Your task to perform on an android device: turn off airplane mode Image 0: 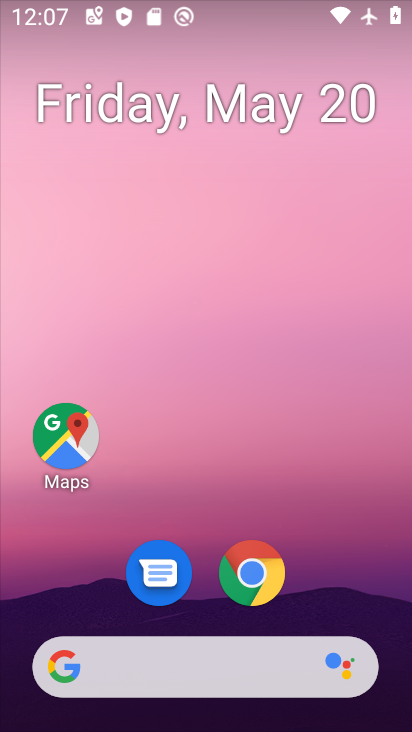
Step 0: drag from (315, 546) to (323, 98)
Your task to perform on an android device: turn off airplane mode Image 1: 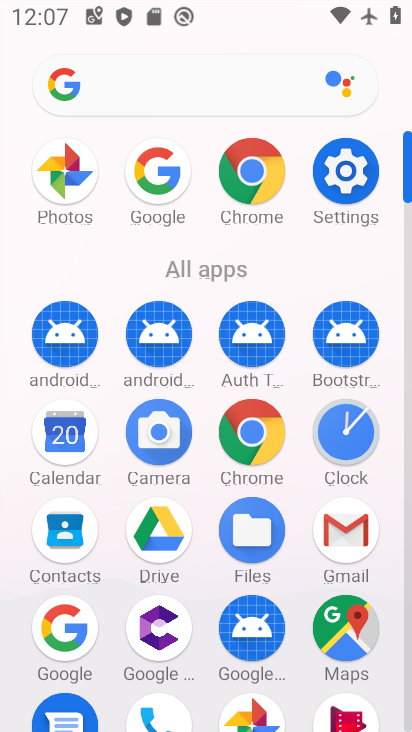
Step 1: click (338, 164)
Your task to perform on an android device: turn off airplane mode Image 2: 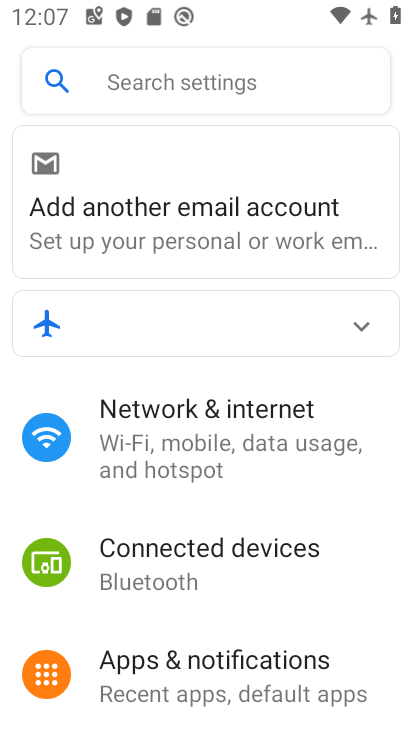
Step 2: drag from (215, 270) to (227, 122)
Your task to perform on an android device: turn off airplane mode Image 3: 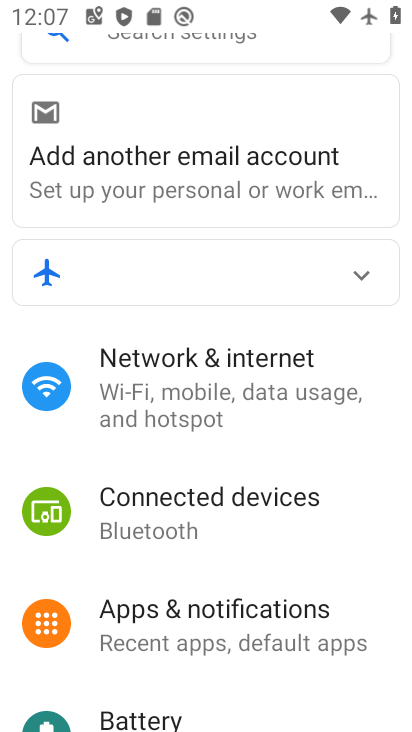
Step 3: click (202, 389)
Your task to perform on an android device: turn off airplane mode Image 4: 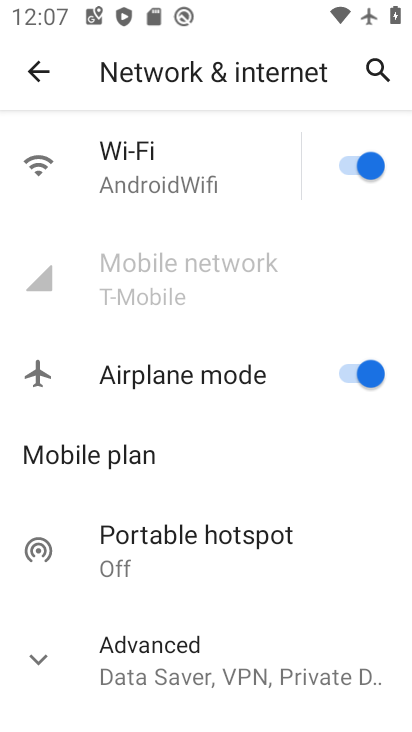
Step 4: click (379, 387)
Your task to perform on an android device: turn off airplane mode Image 5: 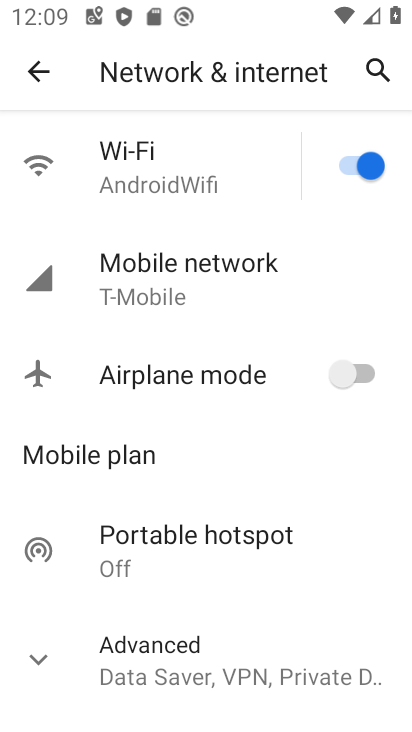
Step 5: task complete